Your task to perform on an android device: empty trash in the gmail app Image 0: 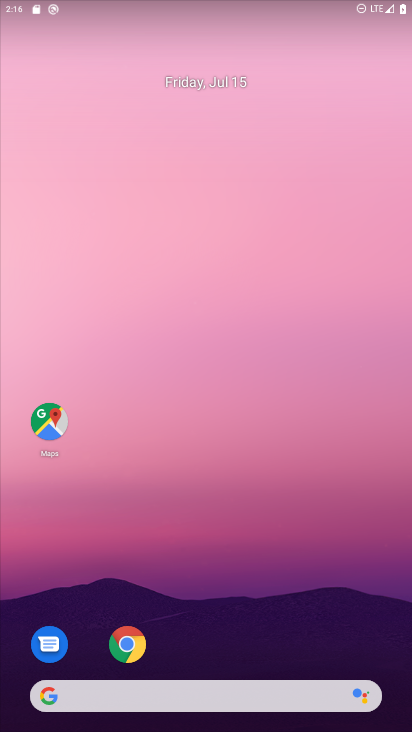
Step 0: drag from (45, 554) to (242, 80)
Your task to perform on an android device: empty trash in the gmail app Image 1: 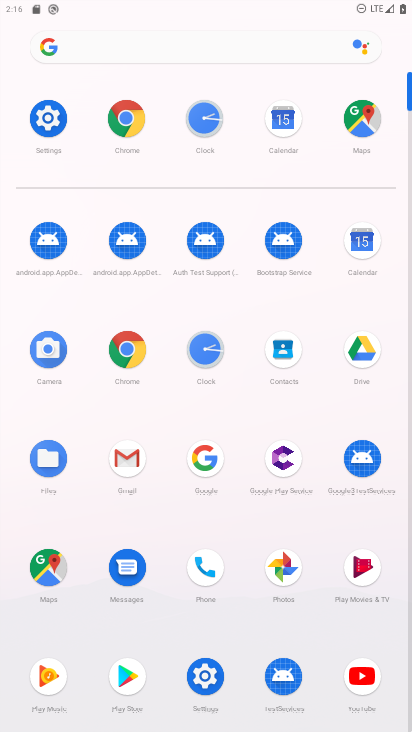
Step 1: click (118, 463)
Your task to perform on an android device: empty trash in the gmail app Image 2: 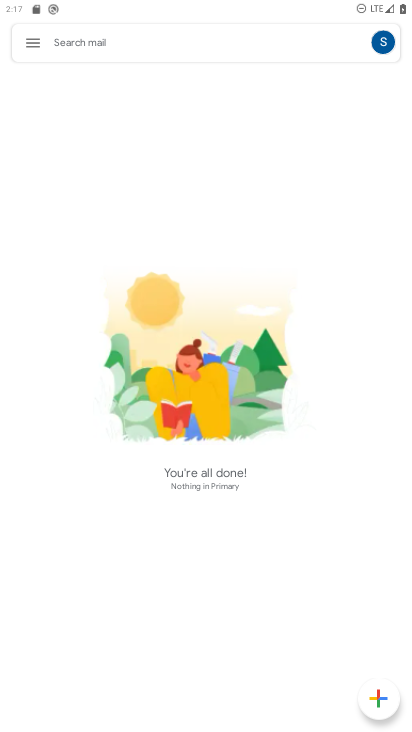
Step 2: click (31, 44)
Your task to perform on an android device: empty trash in the gmail app Image 3: 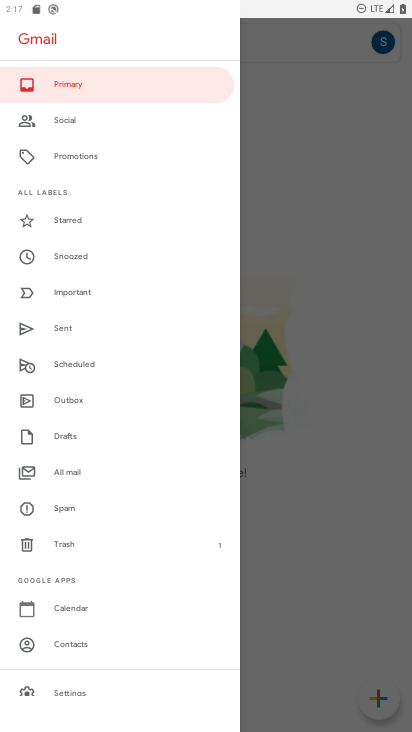
Step 3: click (71, 541)
Your task to perform on an android device: empty trash in the gmail app Image 4: 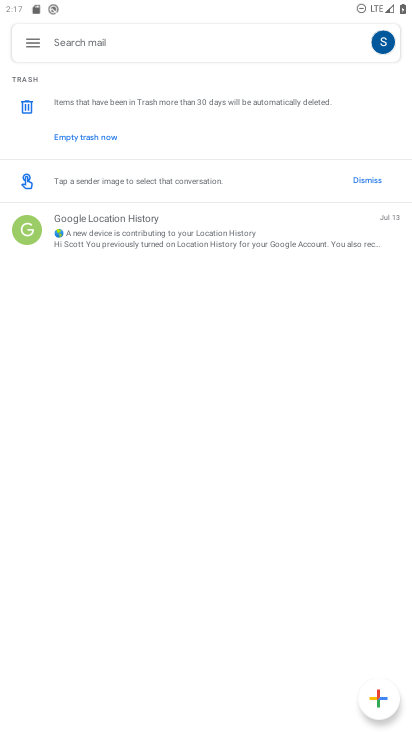
Step 4: click (100, 137)
Your task to perform on an android device: empty trash in the gmail app Image 5: 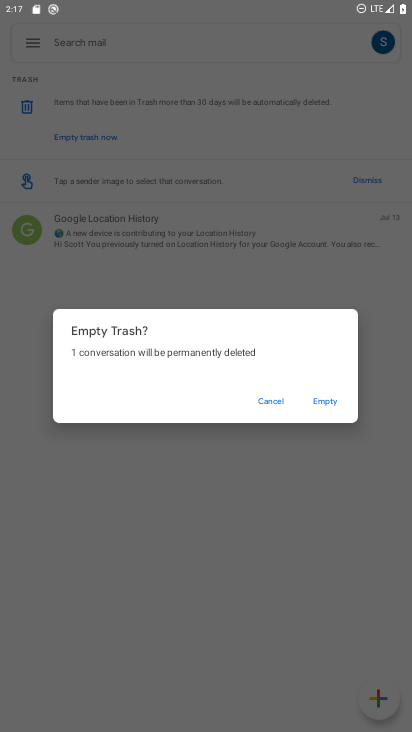
Step 5: click (335, 403)
Your task to perform on an android device: empty trash in the gmail app Image 6: 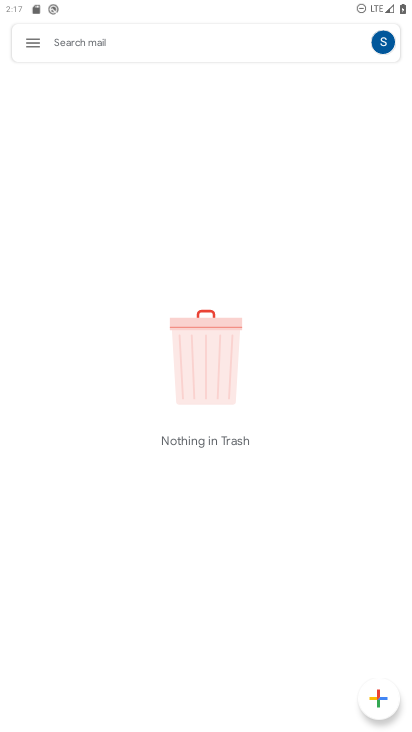
Step 6: task complete